Your task to perform on an android device: move a message to another label in the gmail app Image 0: 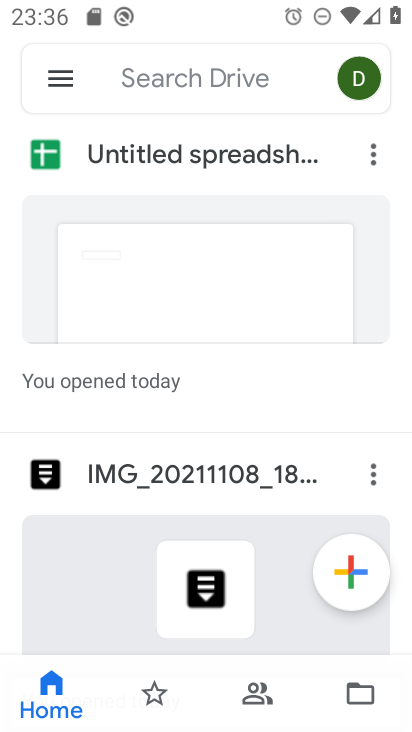
Step 0: press home button
Your task to perform on an android device: move a message to another label in the gmail app Image 1: 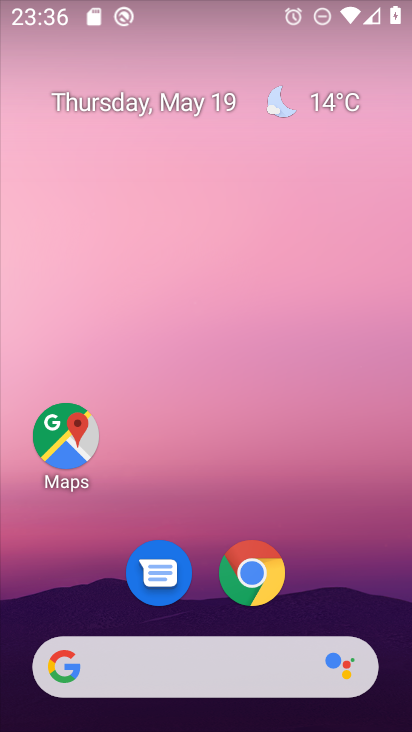
Step 1: drag from (340, 521) to (335, 138)
Your task to perform on an android device: move a message to another label in the gmail app Image 2: 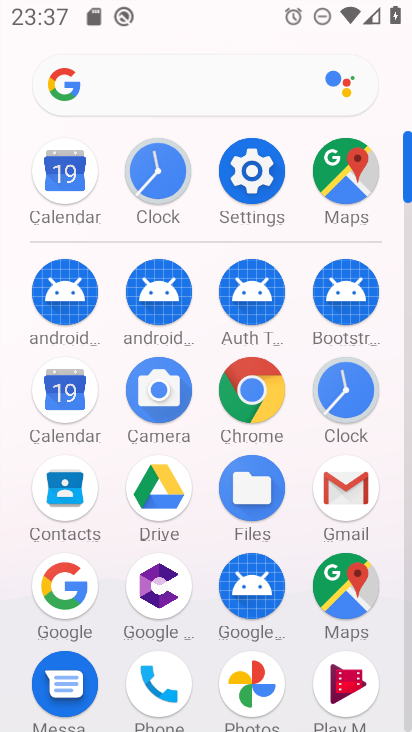
Step 2: click (349, 502)
Your task to perform on an android device: move a message to another label in the gmail app Image 3: 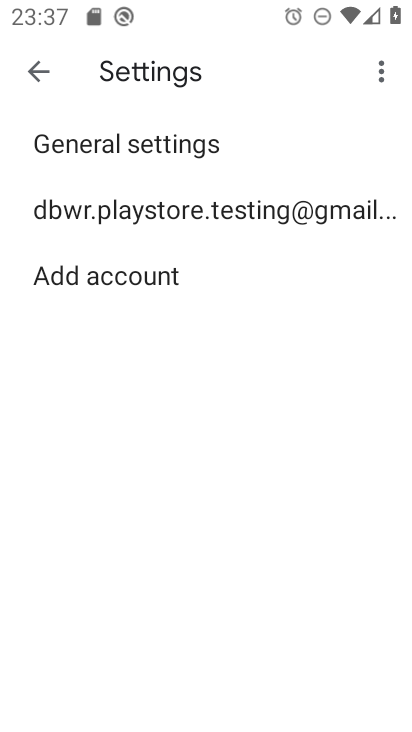
Step 3: click (48, 72)
Your task to perform on an android device: move a message to another label in the gmail app Image 4: 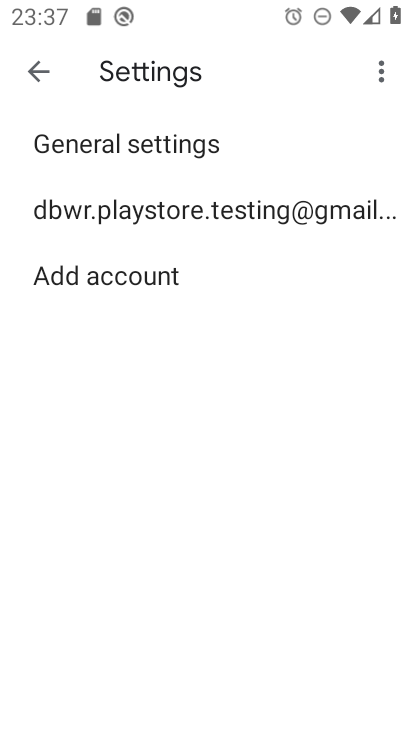
Step 4: click (48, 72)
Your task to perform on an android device: move a message to another label in the gmail app Image 5: 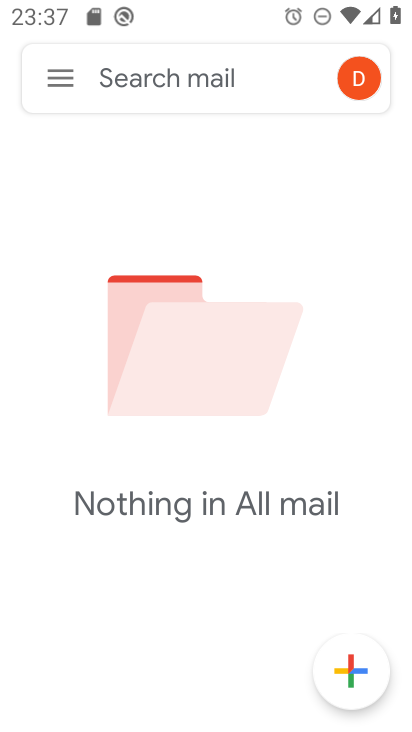
Step 5: click (48, 72)
Your task to perform on an android device: move a message to another label in the gmail app Image 6: 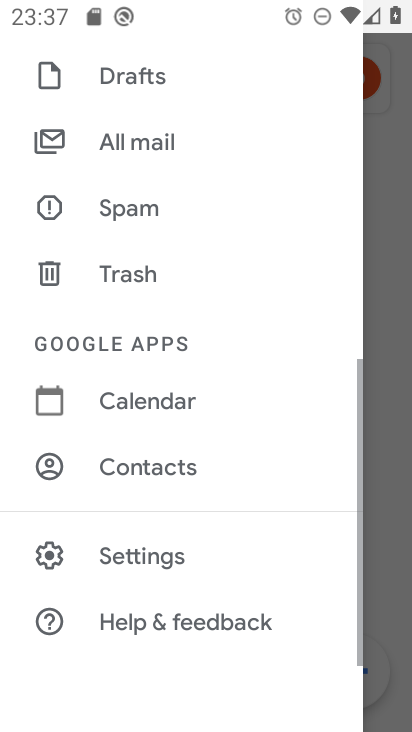
Step 6: drag from (82, 131) to (198, 616)
Your task to perform on an android device: move a message to another label in the gmail app Image 7: 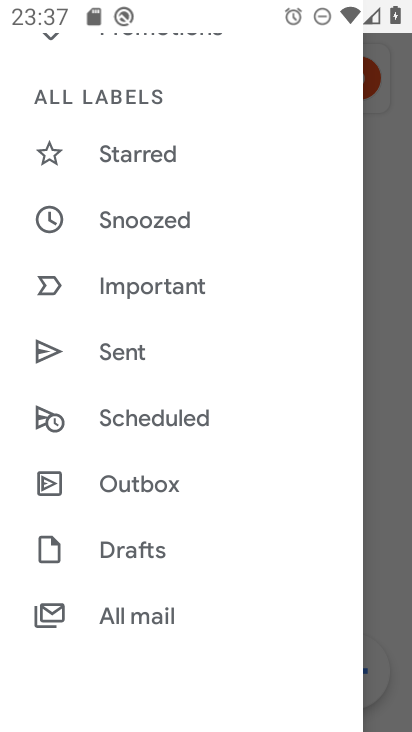
Step 7: drag from (236, 296) to (238, 367)
Your task to perform on an android device: move a message to another label in the gmail app Image 8: 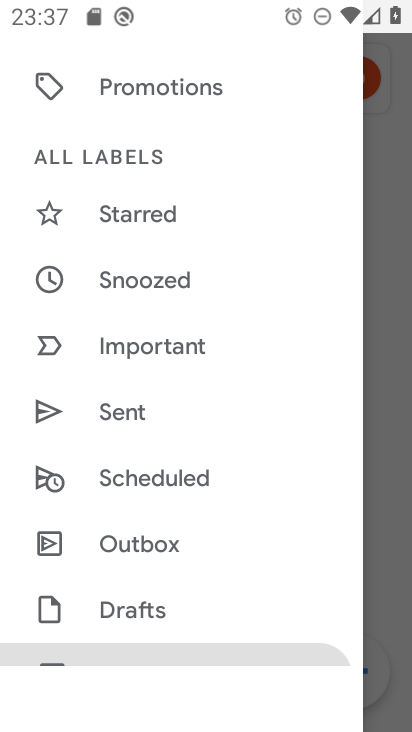
Step 8: drag from (196, 511) to (260, 208)
Your task to perform on an android device: move a message to another label in the gmail app Image 9: 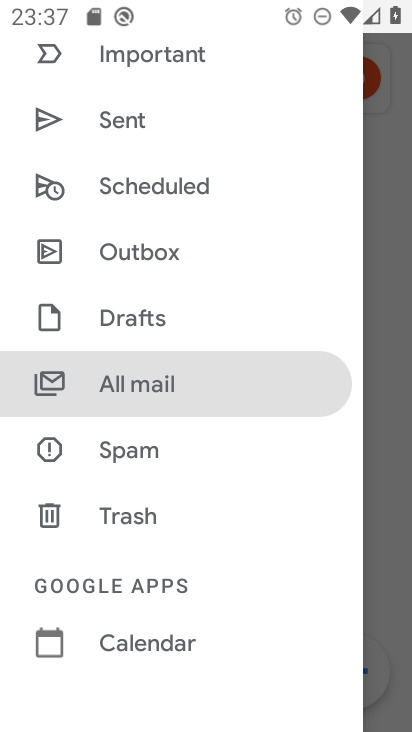
Step 9: click (127, 383)
Your task to perform on an android device: move a message to another label in the gmail app Image 10: 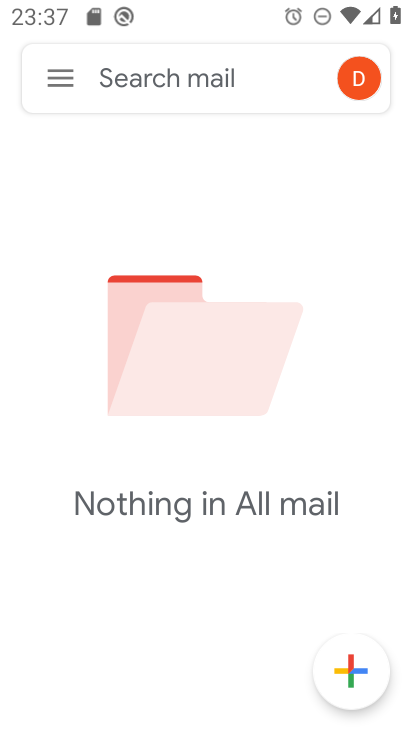
Step 10: task complete